Your task to perform on an android device: install app "Nova Launcher" Image 0: 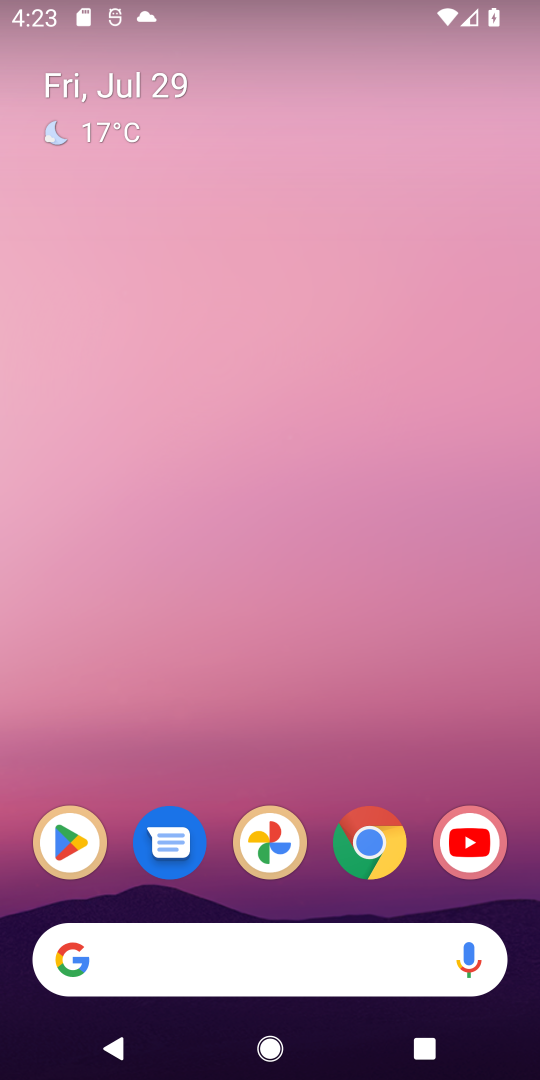
Step 0: click (62, 837)
Your task to perform on an android device: install app "Nova Launcher" Image 1: 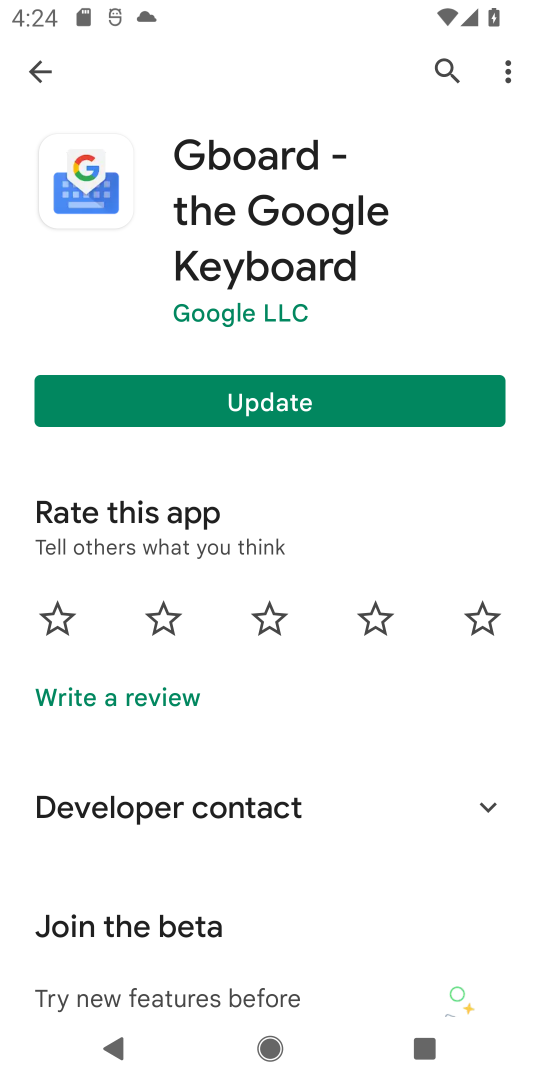
Step 1: click (443, 61)
Your task to perform on an android device: install app "Nova Launcher" Image 2: 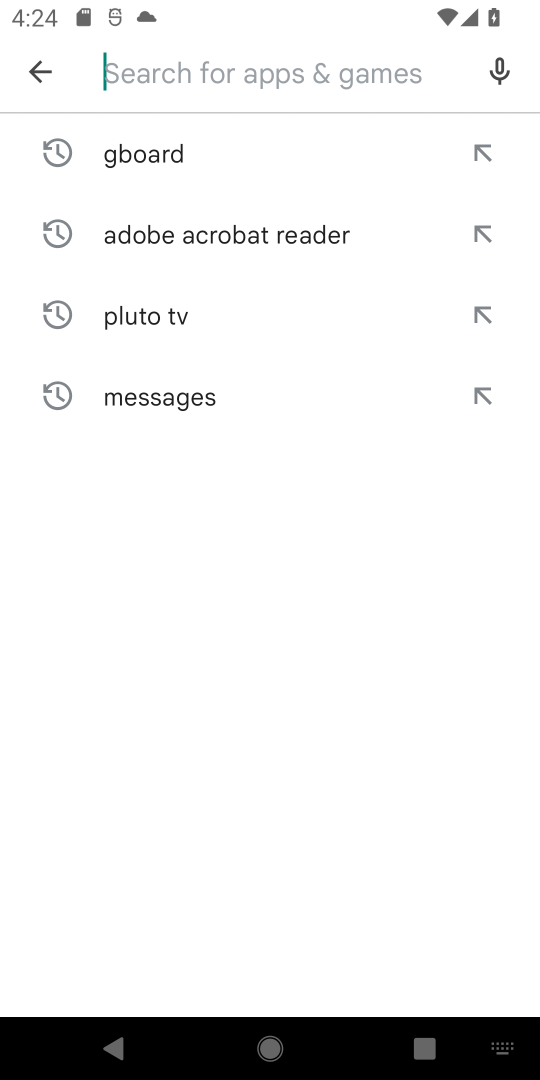
Step 2: click (146, 78)
Your task to perform on an android device: install app "Nova Launcher" Image 3: 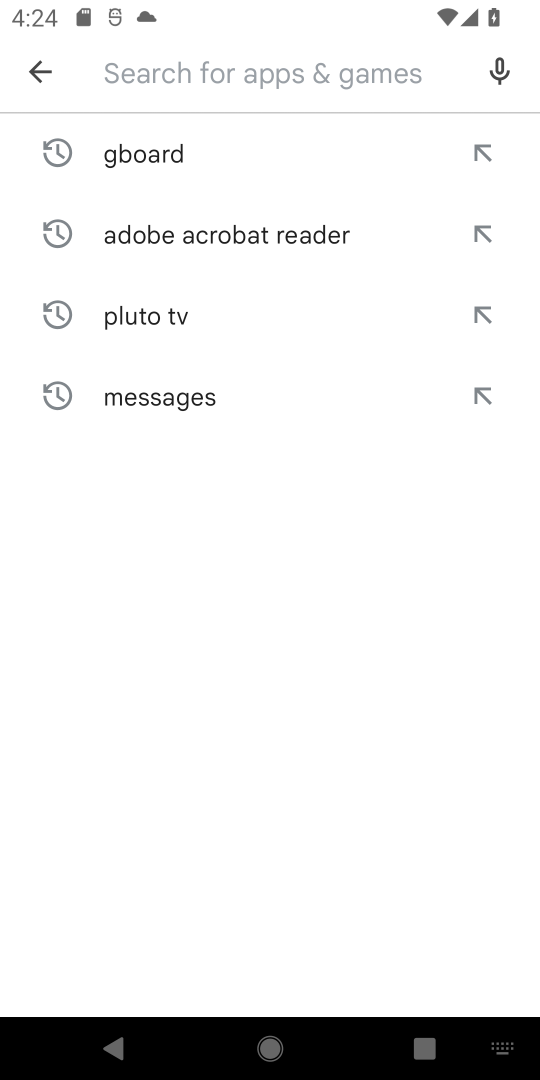
Step 3: type "nova launcher"
Your task to perform on an android device: install app "Nova Launcher" Image 4: 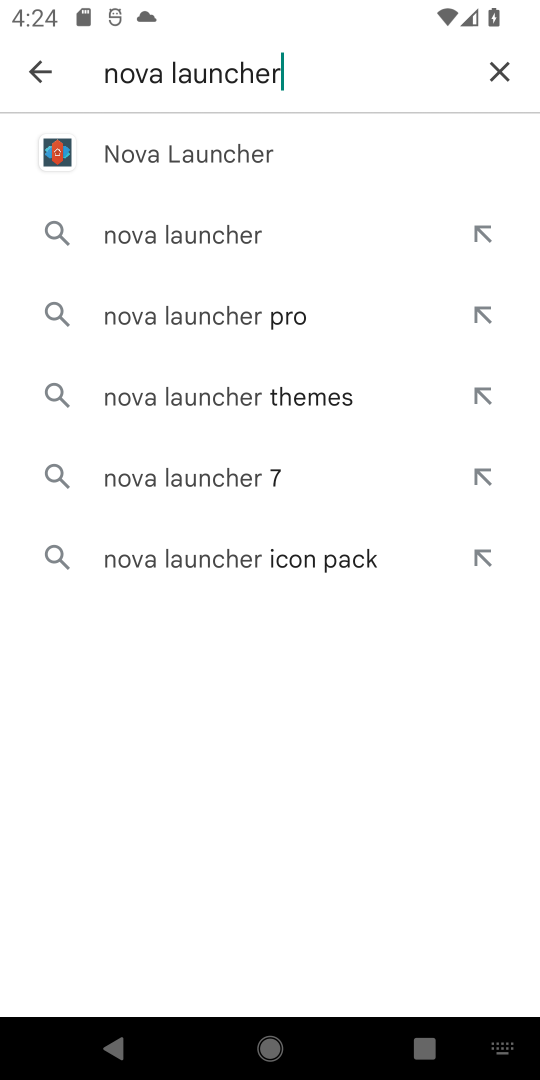
Step 4: click (166, 138)
Your task to perform on an android device: install app "Nova Launcher" Image 5: 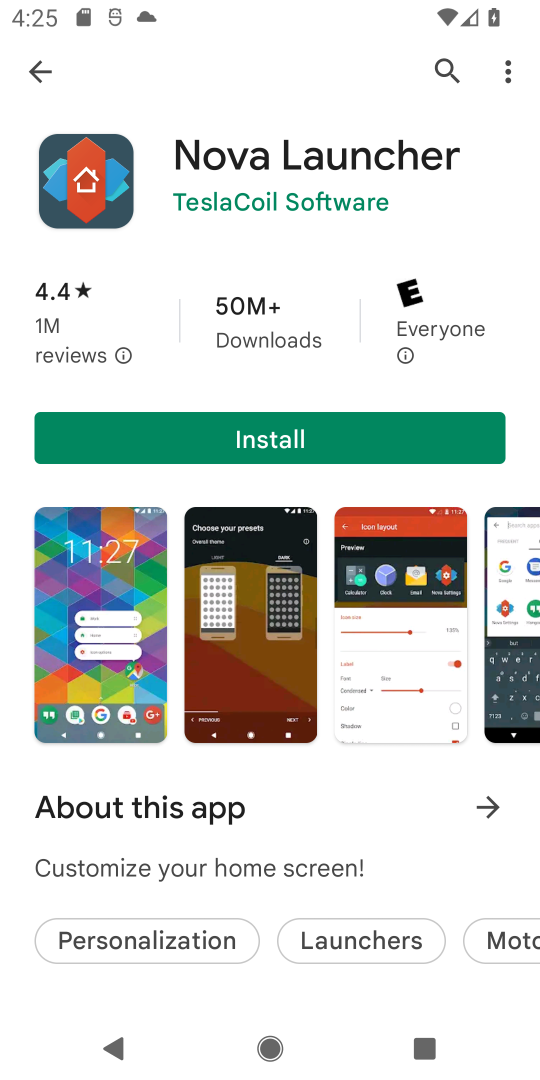
Step 5: click (232, 448)
Your task to perform on an android device: install app "Nova Launcher" Image 6: 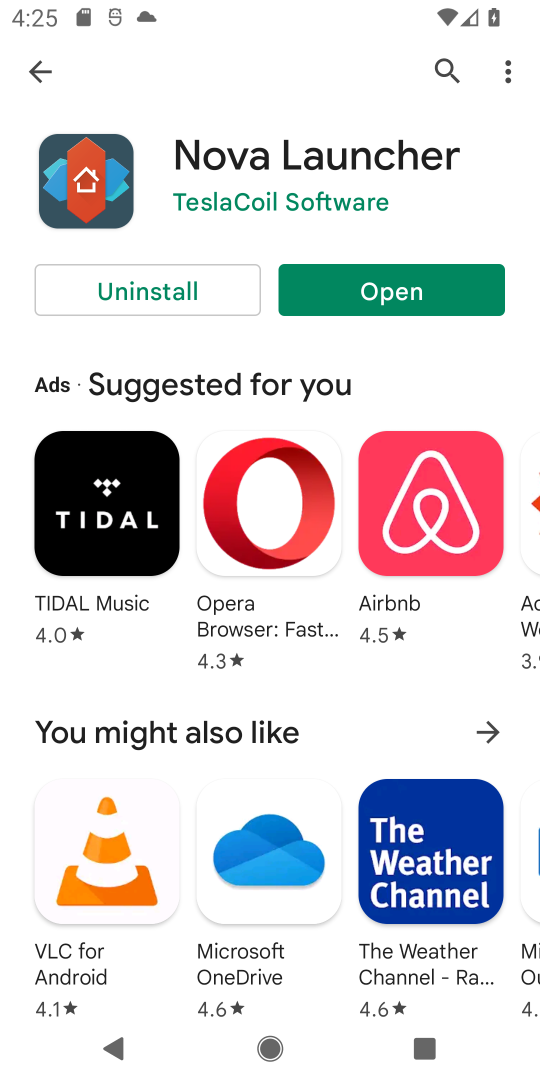
Step 6: click (415, 296)
Your task to perform on an android device: install app "Nova Launcher" Image 7: 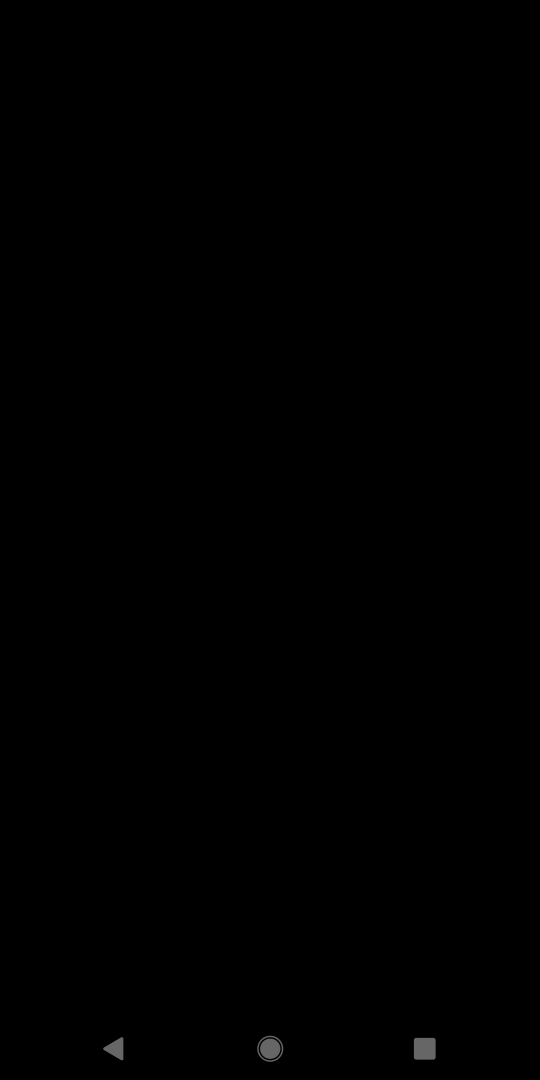
Step 7: task complete